Your task to perform on an android device: Open Yahoo.com Image 0: 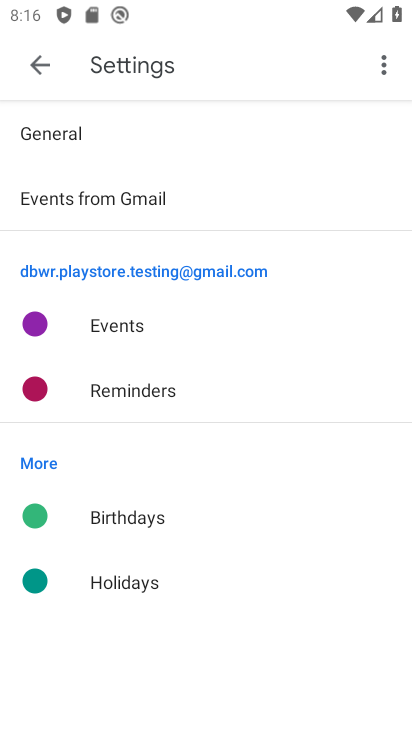
Step 0: press home button
Your task to perform on an android device: Open Yahoo.com Image 1: 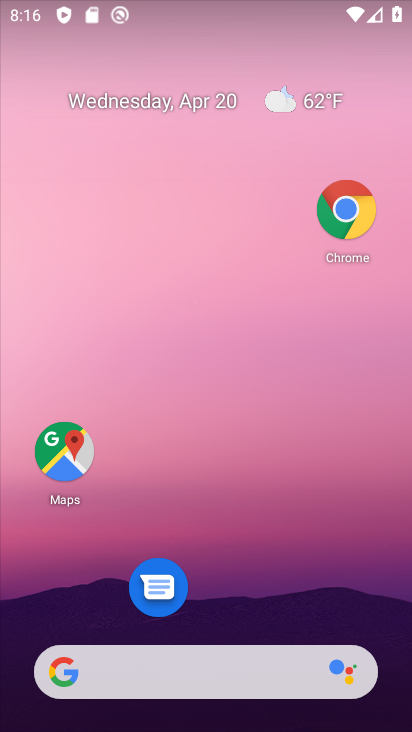
Step 1: click (348, 209)
Your task to perform on an android device: Open Yahoo.com Image 2: 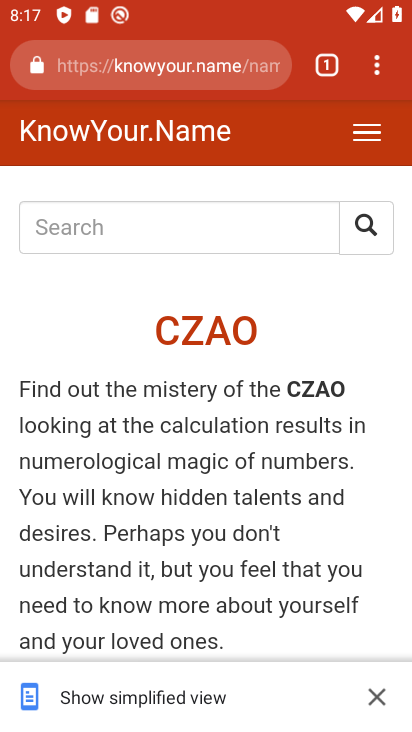
Step 2: click (334, 74)
Your task to perform on an android device: Open Yahoo.com Image 3: 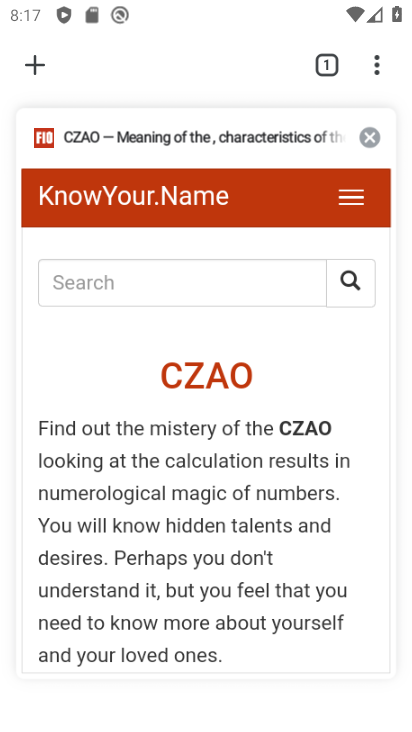
Step 3: click (34, 57)
Your task to perform on an android device: Open Yahoo.com Image 4: 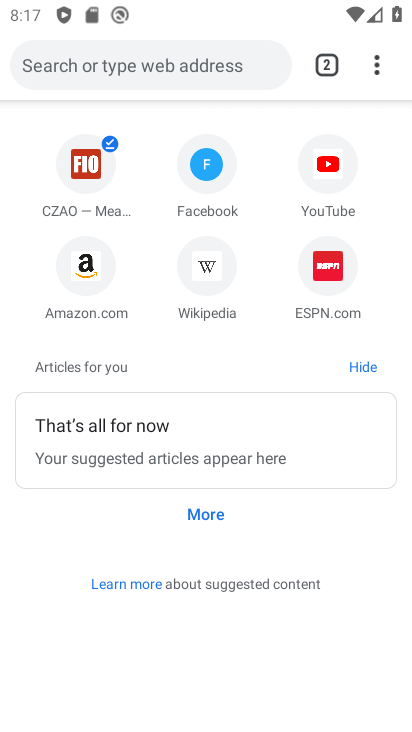
Step 4: click (171, 57)
Your task to perform on an android device: Open Yahoo.com Image 5: 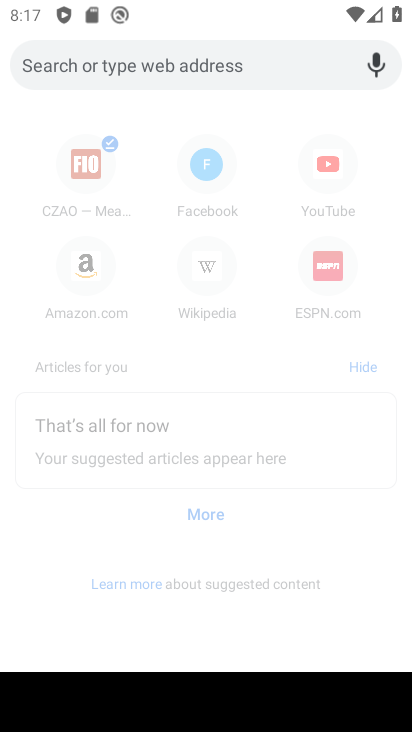
Step 5: type "yahoo.com"
Your task to perform on an android device: Open Yahoo.com Image 6: 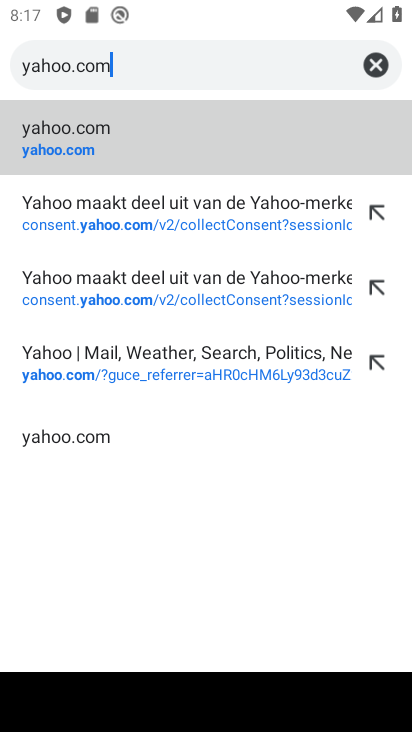
Step 6: click (129, 138)
Your task to perform on an android device: Open Yahoo.com Image 7: 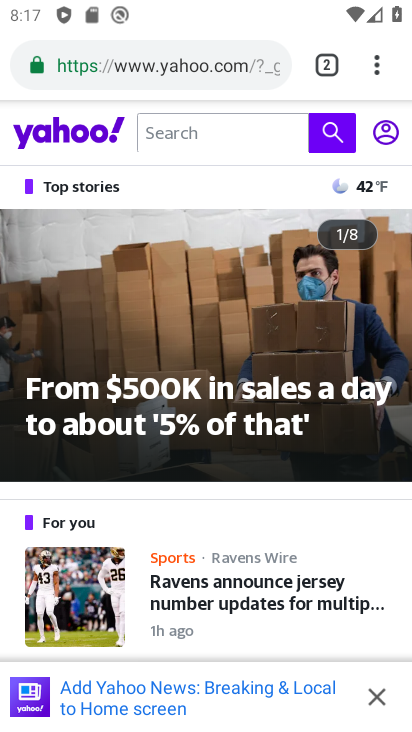
Step 7: task complete